Your task to perform on an android device: Open CNN.com Image 0: 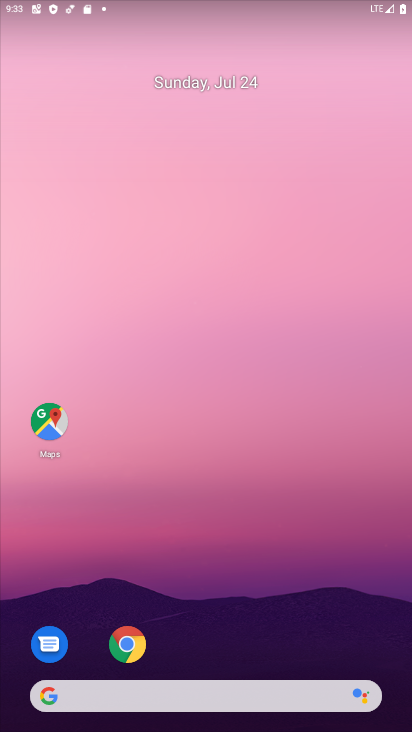
Step 0: drag from (212, 569) to (212, 314)
Your task to perform on an android device: Open CNN.com Image 1: 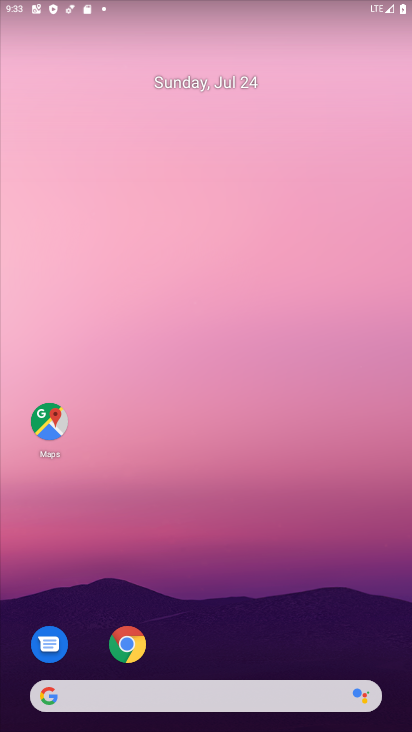
Step 1: drag from (239, 194) to (239, 157)
Your task to perform on an android device: Open CNN.com Image 2: 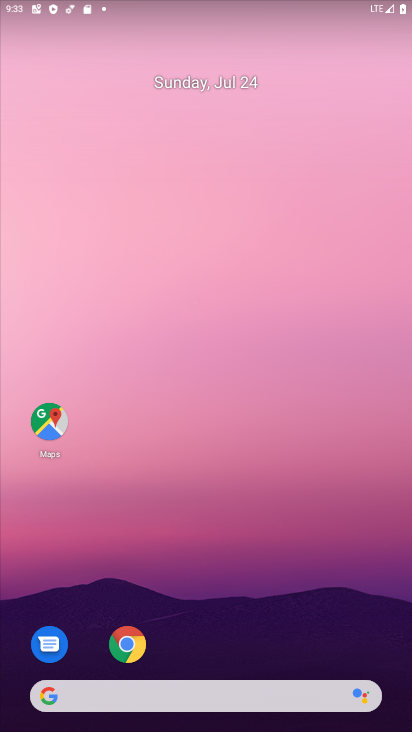
Step 2: drag from (201, 669) to (218, 163)
Your task to perform on an android device: Open CNN.com Image 3: 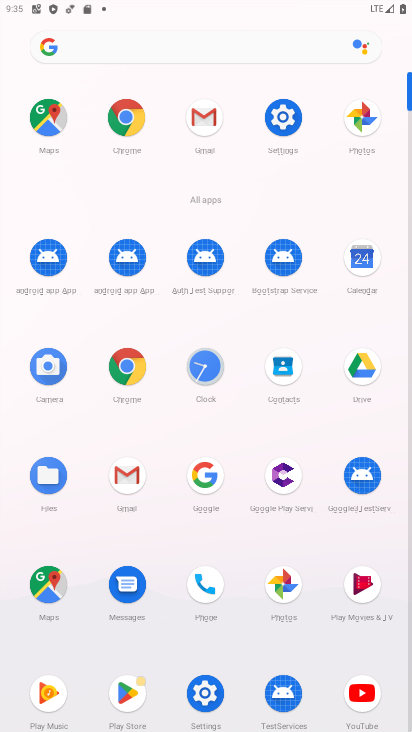
Step 3: click (136, 367)
Your task to perform on an android device: Open CNN.com Image 4: 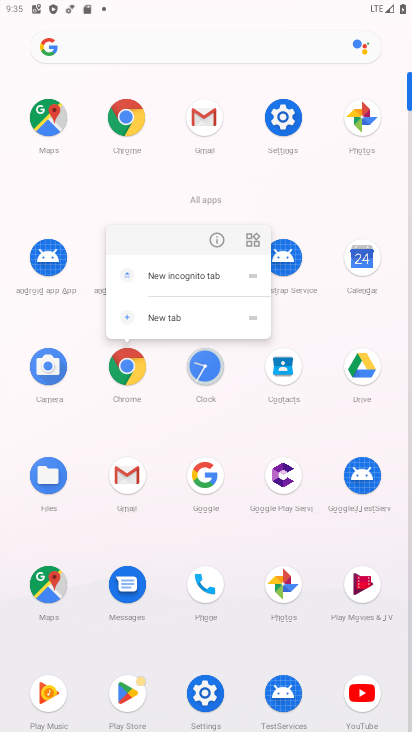
Step 4: click (136, 367)
Your task to perform on an android device: Open CNN.com Image 5: 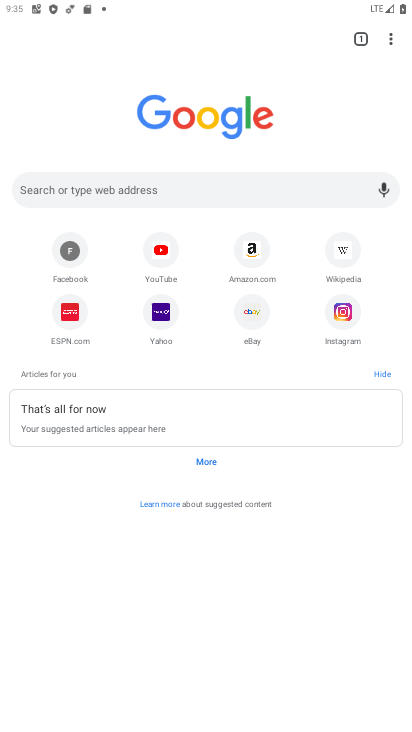
Step 5: click (180, 184)
Your task to perform on an android device: Open CNN.com Image 6: 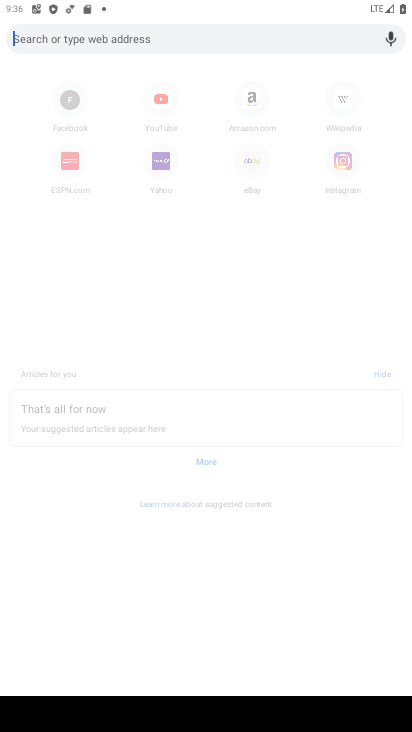
Step 6: type "CNN.com"
Your task to perform on an android device: Open CNN.com Image 7: 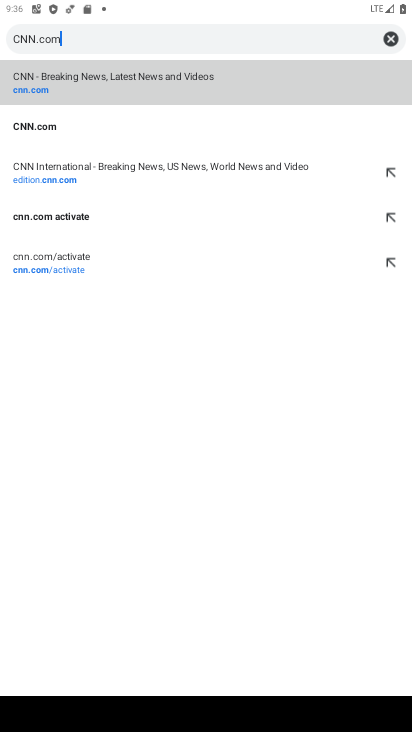
Step 7: click (40, 123)
Your task to perform on an android device: Open CNN.com Image 8: 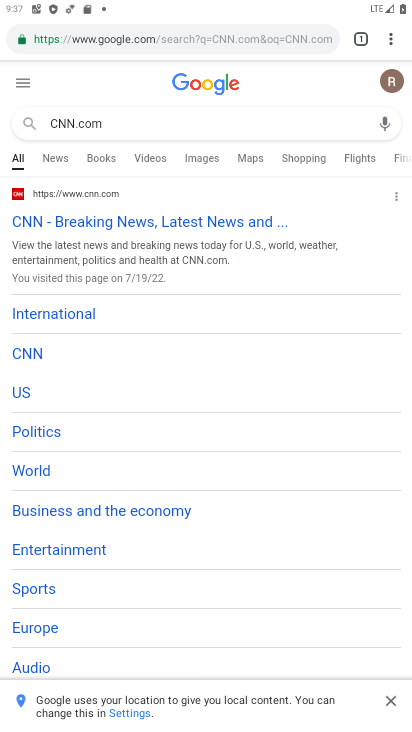
Step 8: click (132, 224)
Your task to perform on an android device: Open CNN.com Image 9: 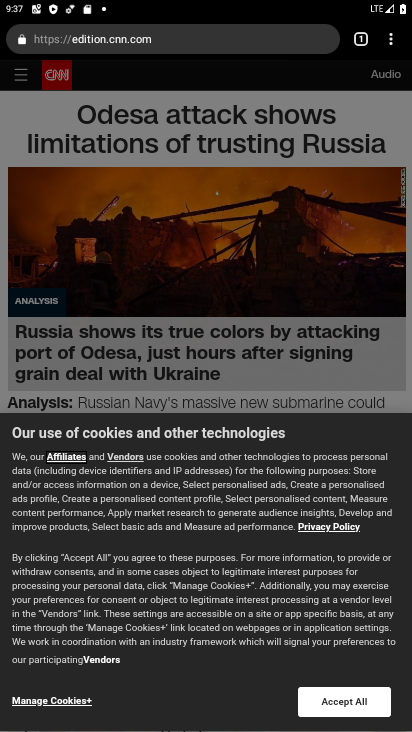
Step 9: task complete